Your task to perform on an android device: Go to notification settings Image 0: 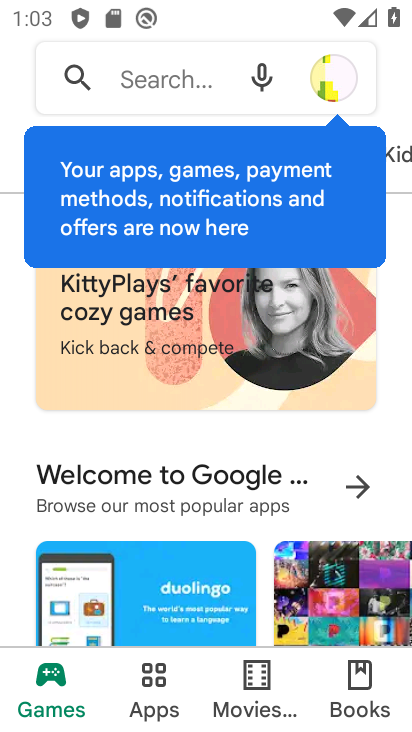
Step 0: press home button
Your task to perform on an android device: Go to notification settings Image 1: 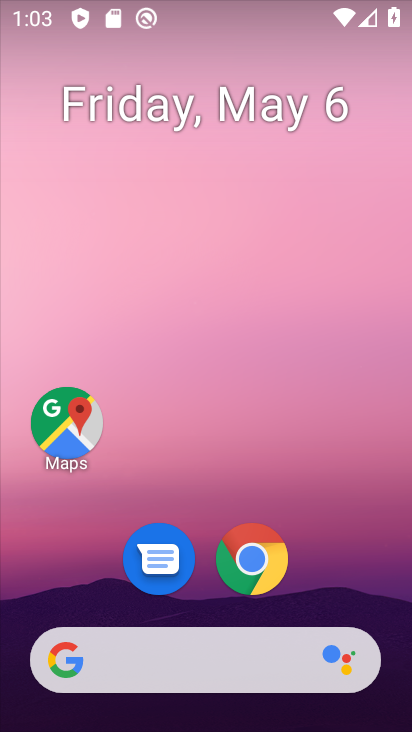
Step 1: drag from (169, 656) to (323, 103)
Your task to perform on an android device: Go to notification settings Image 2: 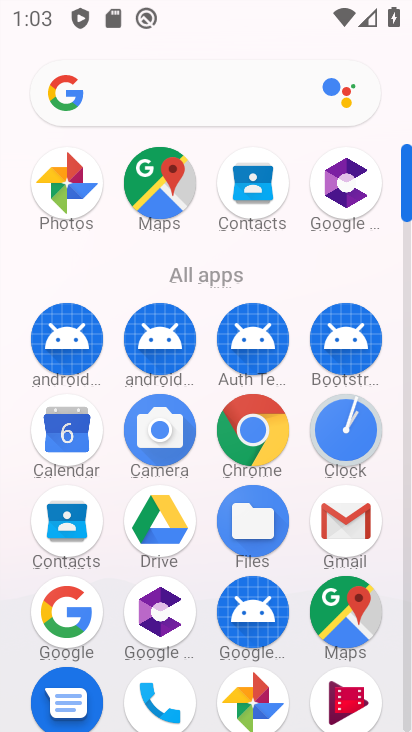
Step 2: drag from (218, 605) to (360, 192)
Your task to perform on an android device: Go to notification settings Image 3: 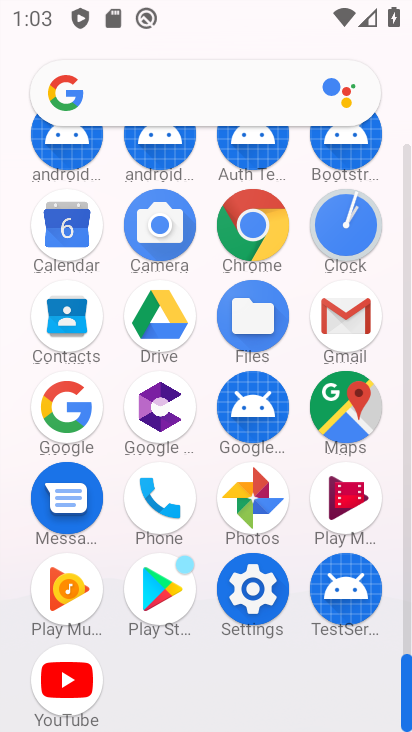
Step 3: click (258, 582)
Your task to perform on an android device: Go to notification settings Image 4: 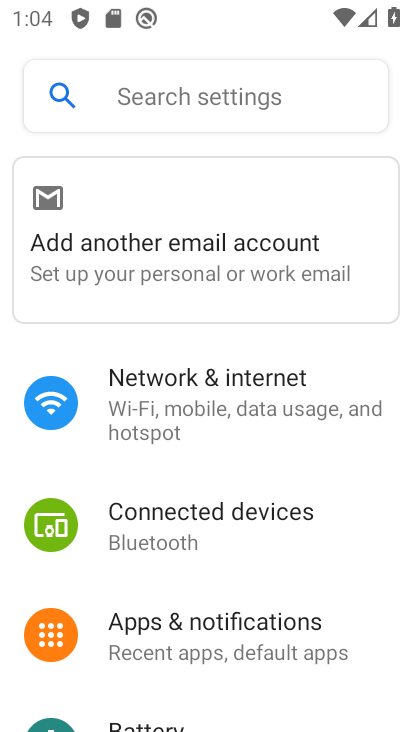
Step 4: click (207, 623)
Your task to perform on an android device: Go to notification settings Image 5: 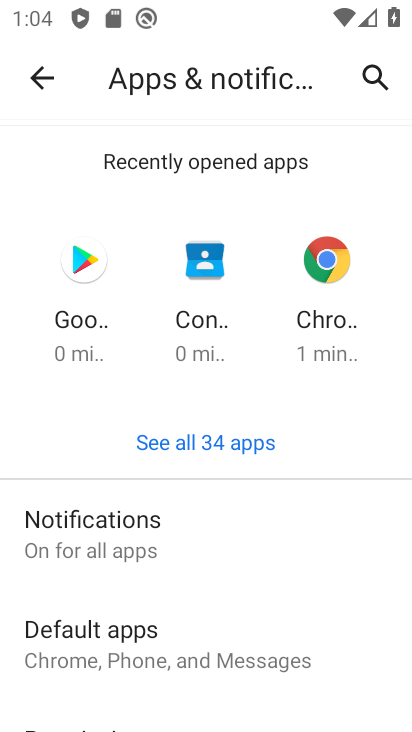
Step 5: click (128, 546)
Your task to perform on an android device: Go to notification settings Image 6: 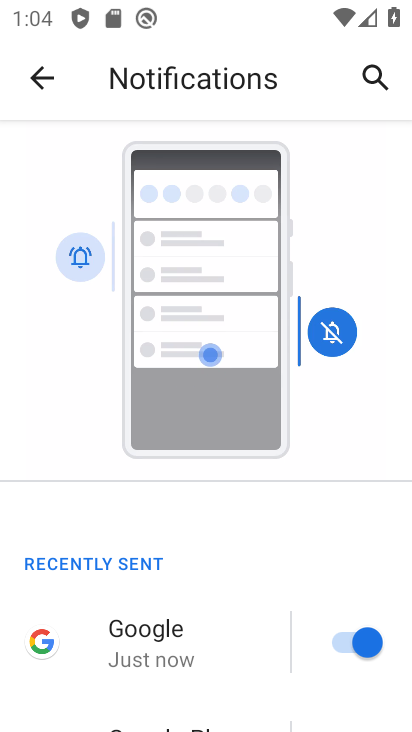
Step 6: task complete